Your task to perform on an android device: allow cookies in the chrome app Image 0: 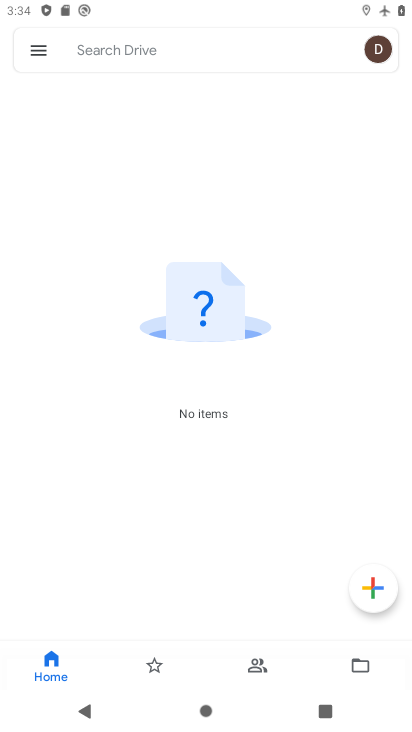
Step 0: press home button
Your task to perform on an android device: allow cookies in the chrome app Image 1: 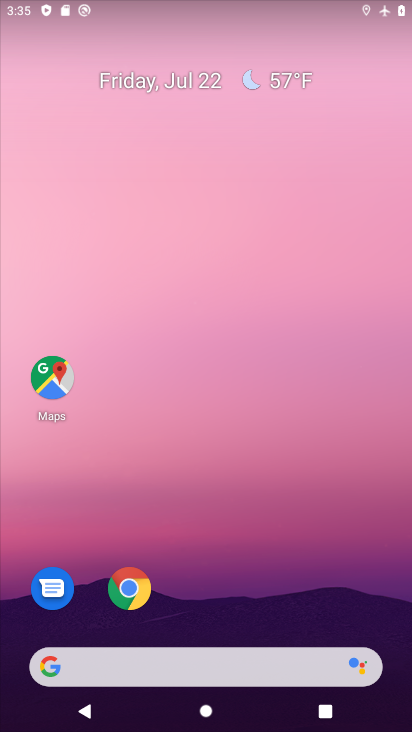
Step 1: drag from (201, 644) to (194, 38)
Your task to perform on an android device: allow cookies in the chrome app Image 2: 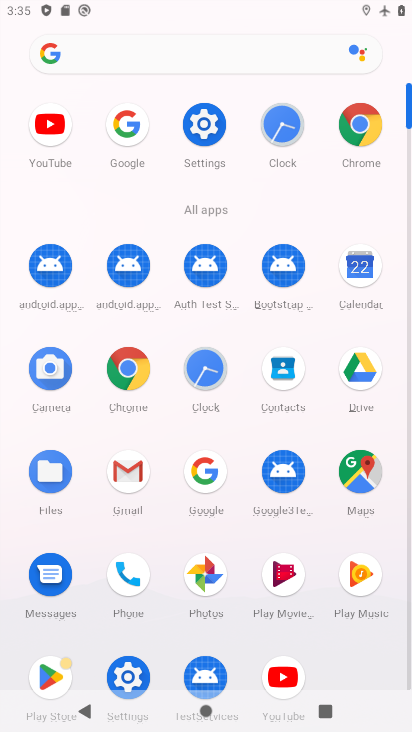
Step 2: click (138, 365)
Your task to perform on an android device: allow cookies in the chrome app Image 3: 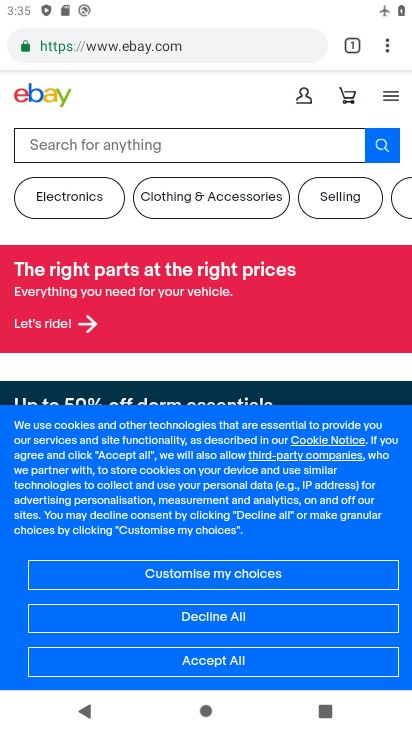
Step 3: drag from (387, 42) to (253, 502)
Your task to perform on an android device: allow cookies in the chrome app Image 4: 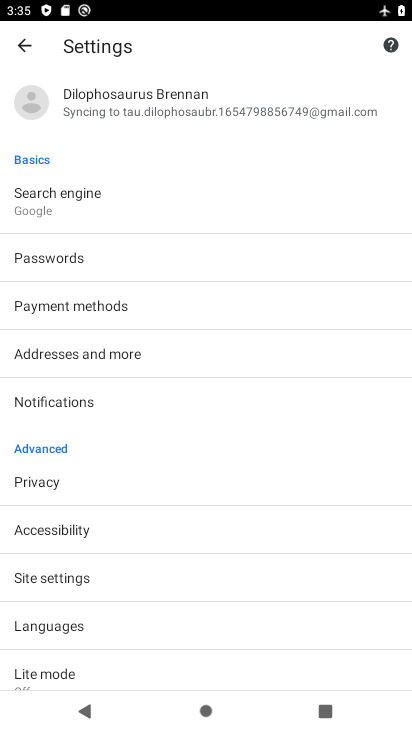
Step 4: click (68, 569)
Your task to perform on an android device: allow cookies in the chrome app Image 5: 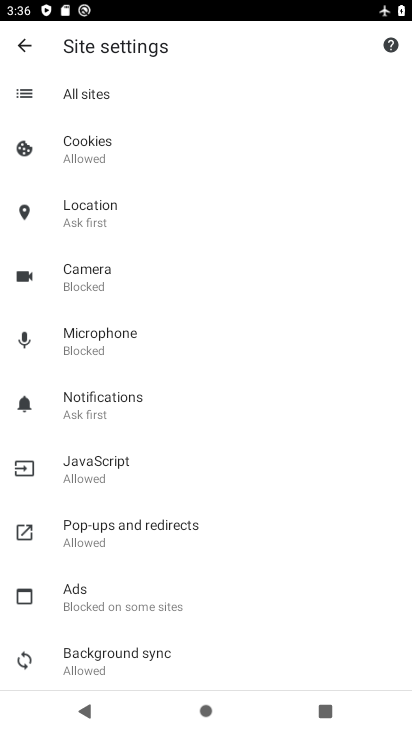
Step 5: drag from (117, 572) to (126, 148)
Your task to perform on an android device: allow cookies in the chrome app Image 6: 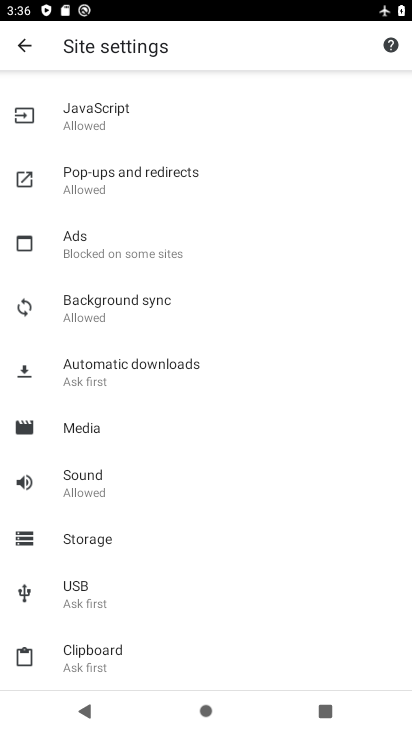
Step 6: drag from (192, 556) to (192, 136)
Your task to perform on an android device: allow cookies in the chrome app Image 7: 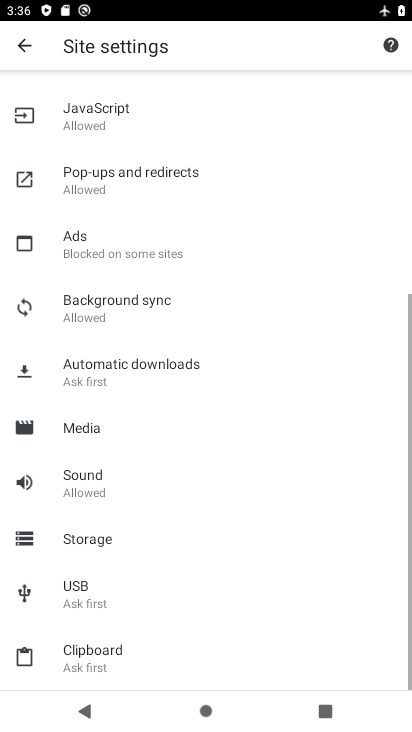
Step 7: drag from (184, 145) to (141, 689)
Your task to perform on an android device: allow cookies in the chrome app Image 8: 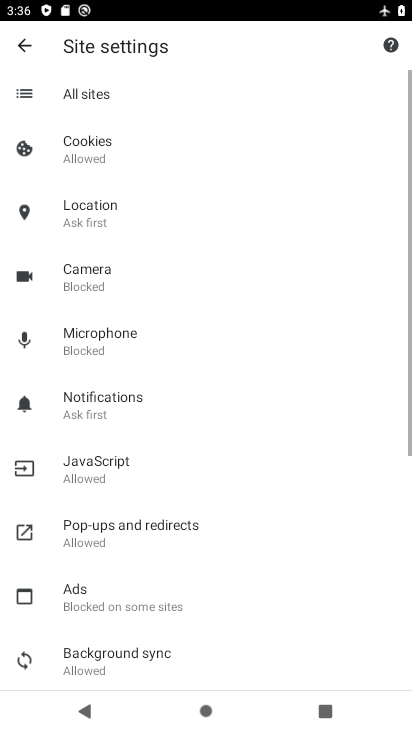
Step 8: click (103, 123)
Your task to perform on an android device: allow cookies in the chrome app Image 9: 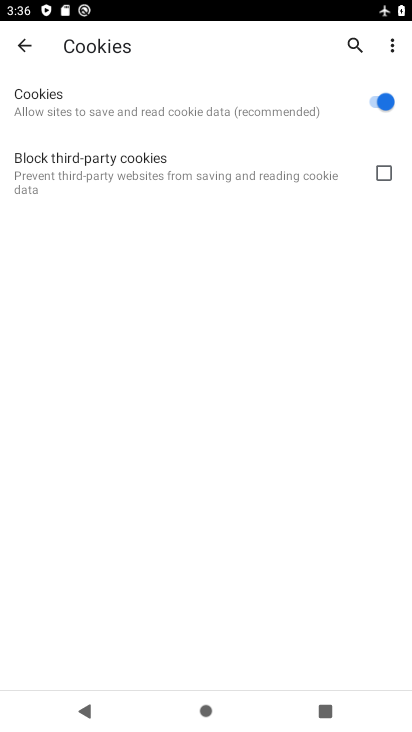
Step 9: task complete